Your task to perform on an android device: turn off translation in the chrome app Image 0: 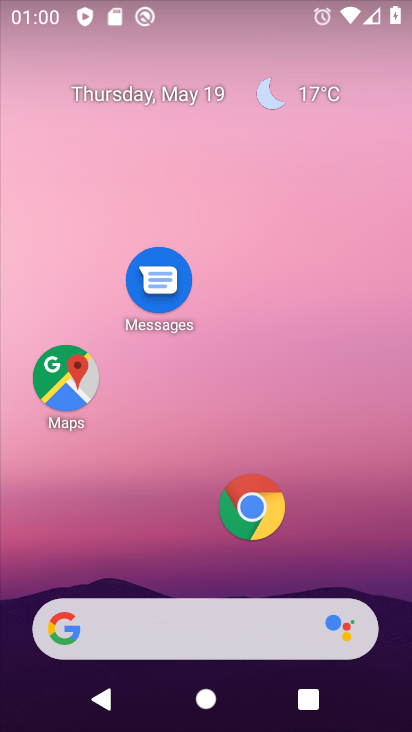
Step 0: click (288, 504)
Your task to perform on an android device: turn off translation in the chrome app Image 1: 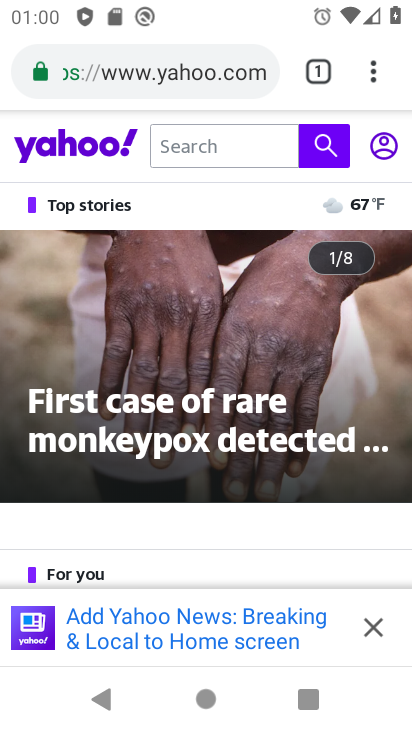
Step 1: click (368, 66)
Your task to perform on an android device: turn off translation in the chrome app Image 2: 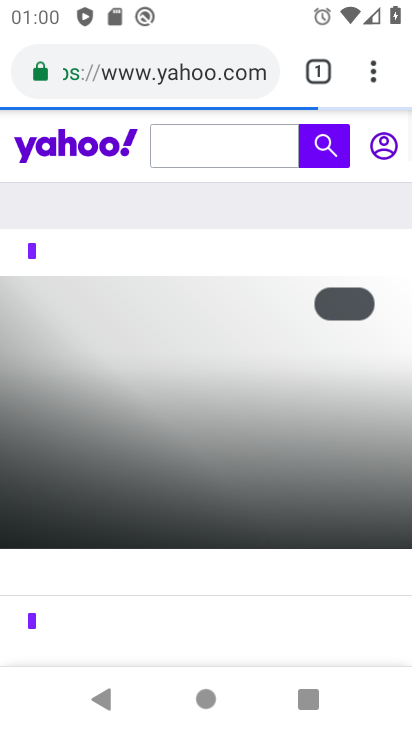
Step 2: click (385, 73)
Your task to perform on an android device: turn off translation in the chrome app Image 3: 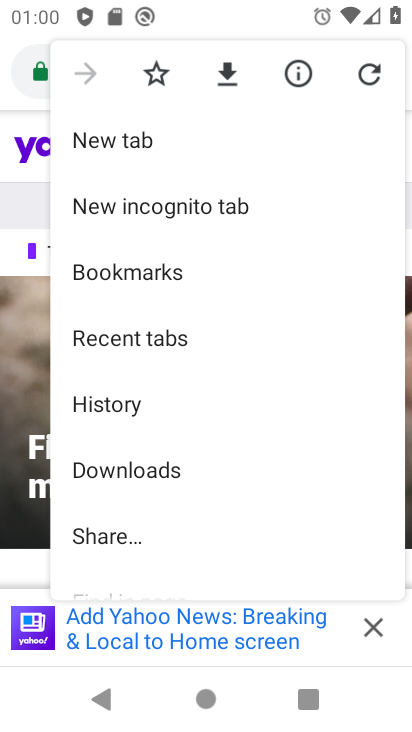
Step 3: drag from (212, 518) to (200, 231)
Your task to perform on an android device: turn off translation in the chrome app Image 4: 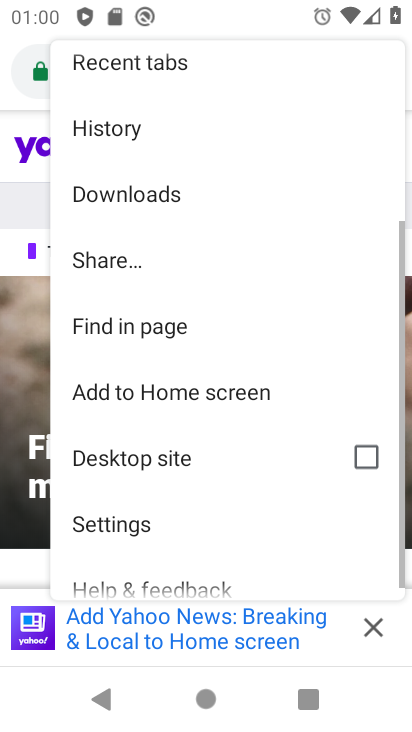
Step 4: click (126, 526)
Your task to perform on an android device: turn off translation in the chrome app Image 5: 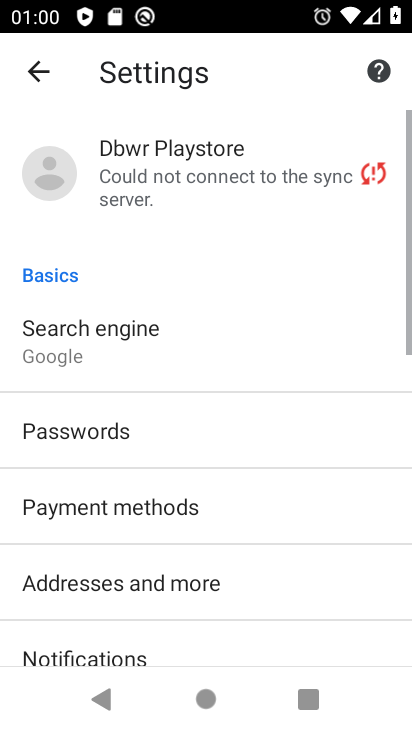
Step 5: drag from (126, 500) to (126, 216)
Your task to perform on an android device: turn off translation in the chrome app Image 6: 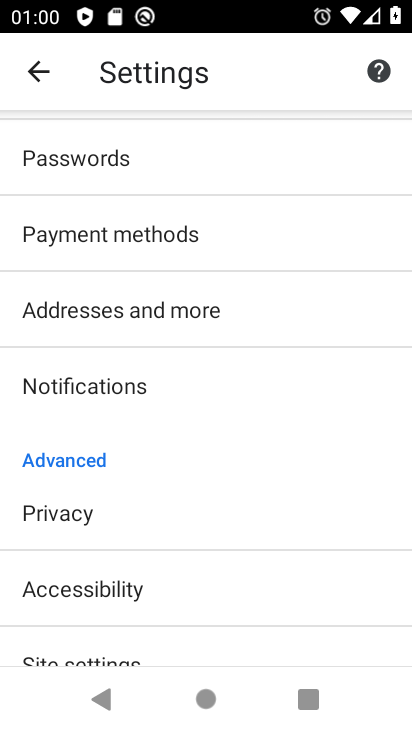
Step 6: drag from (98, 584) to (91, 333)
Your task to perform on an android device: turn off translation in the chrome app Image 7: 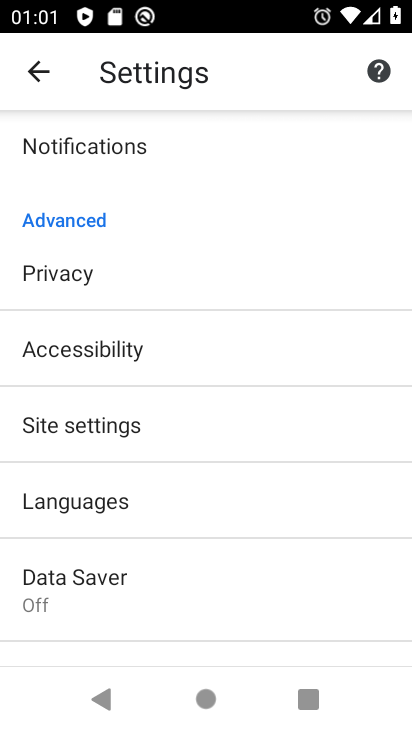
Step 7: drag from (131, 543) to (181, 244)
Your task to perform on an android device: turn off translation in the chrome app Image 8: 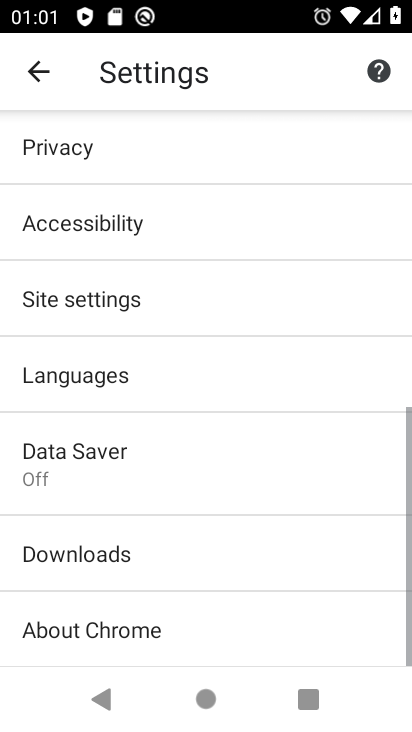
Step 8: click (127, 382)
Your task to perform on an android device: turn off translation in the chrome app Image 9: 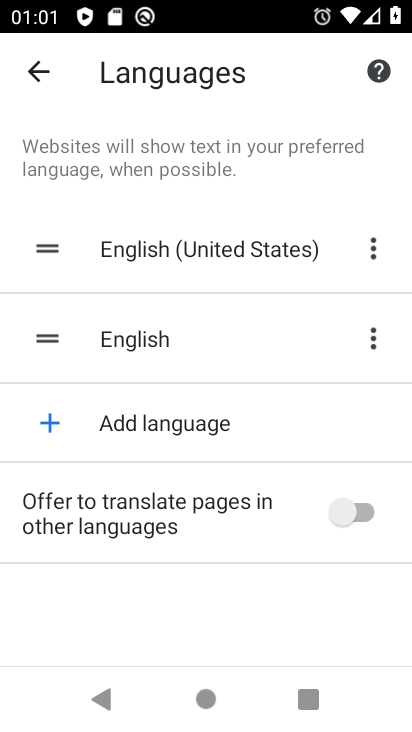
Step 9: task complete